Your task to perform on an android device: When is my next appointment? Image 0: 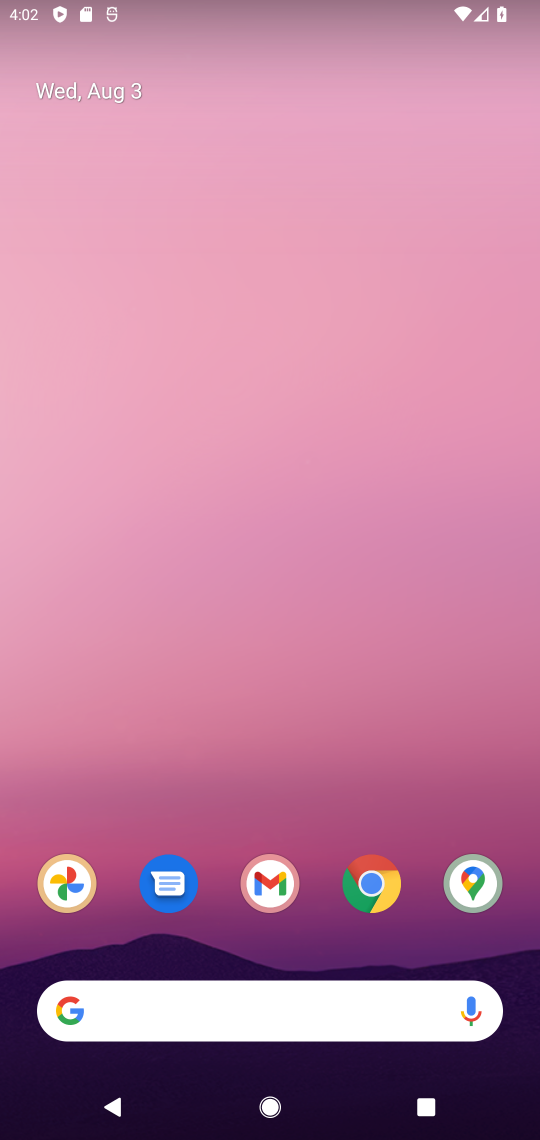
Step 0: drag from (274, 900) to (322, 205)
Your task to perform on an android device: When is my next appointment? Image 1: 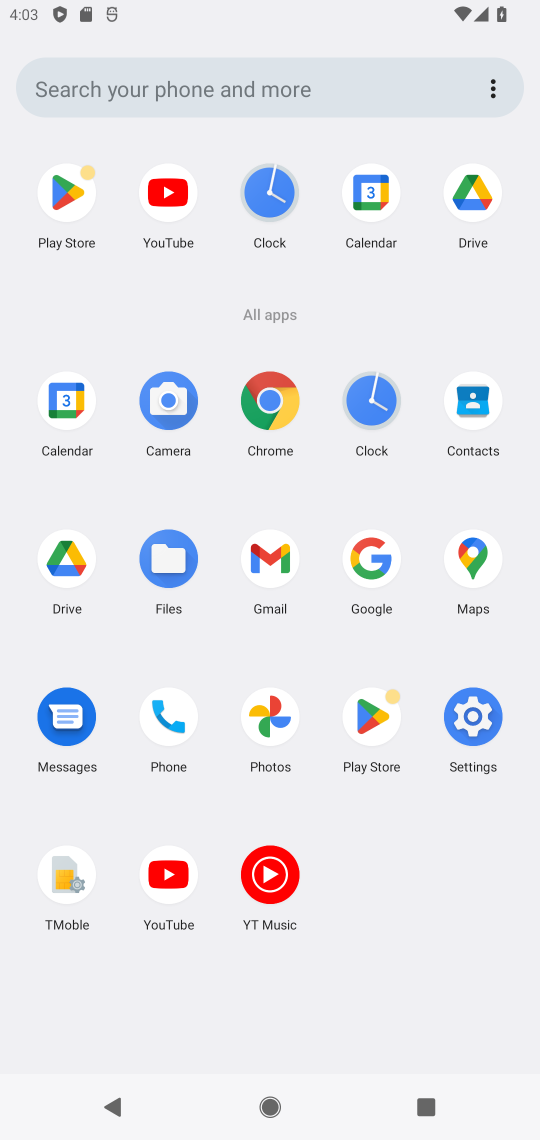
Step 1: click (474, 421)
Your task to perform on an android device: When is my next appointment? Image 2: 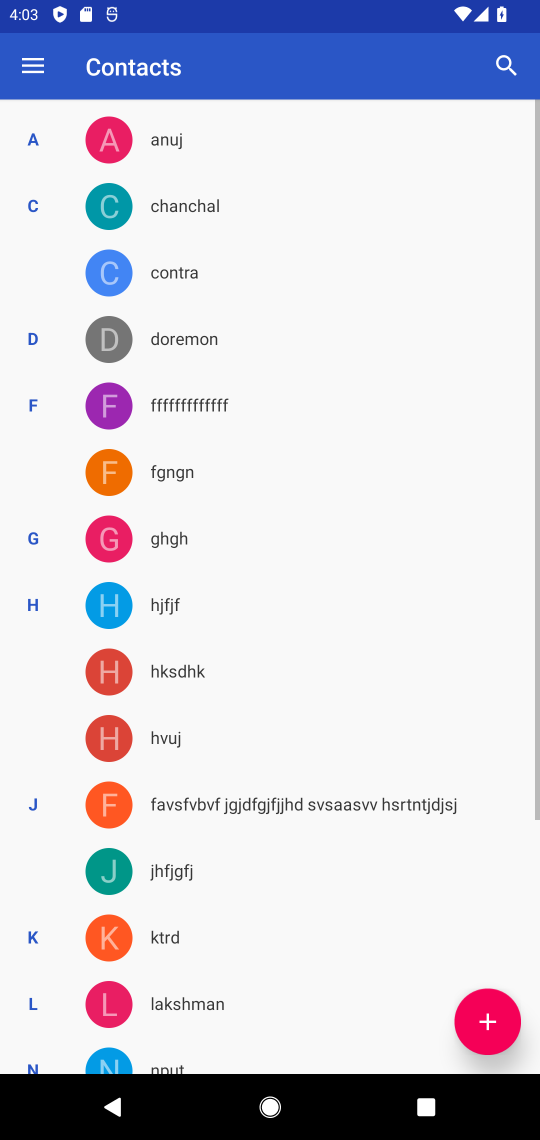
Step 2: press back button
Your task to perform on an android device: When is my next appointment? Image 3: 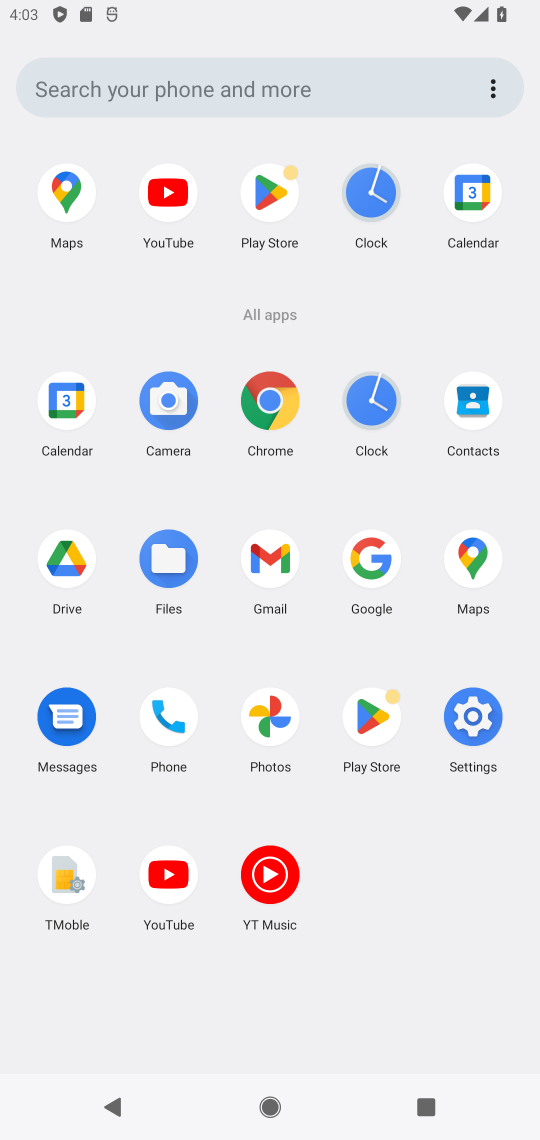
Step 3: click (64, 401)
Your task to perform on an android device: When is my next appointment? Image 4: 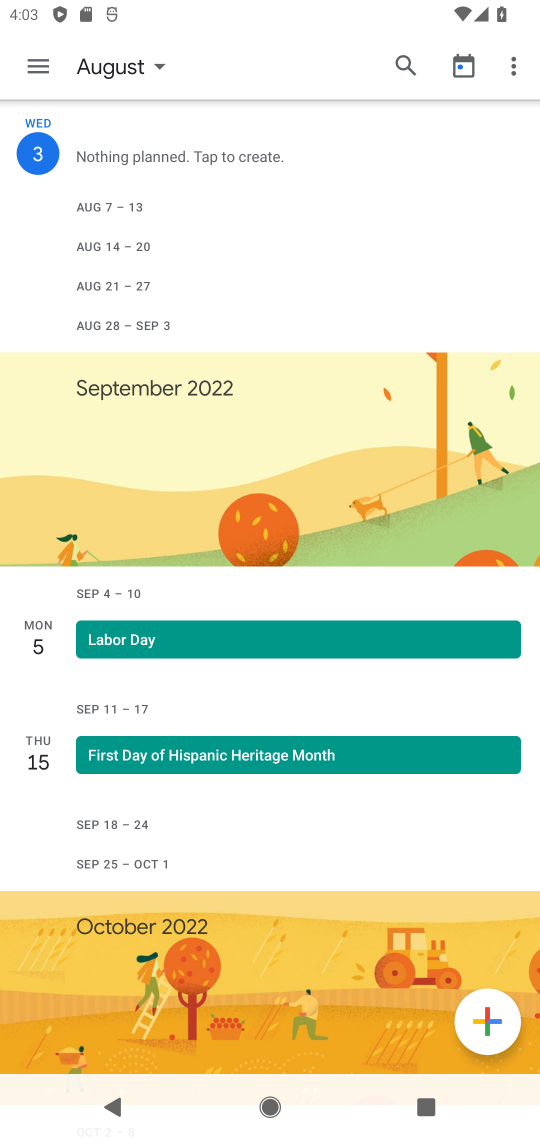
Step 4: click (43, 58)
Your task to perform on an android device: When is my next appointment? Image 5: 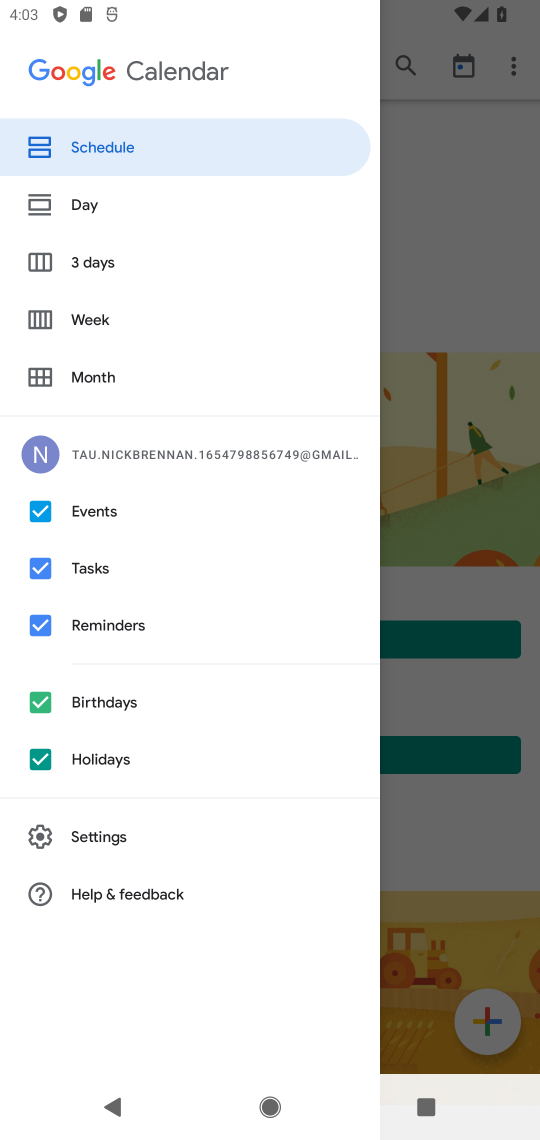
Step 5: click (158, 142)
Your task to perform on an android device: When is my next appointment? Image 6: 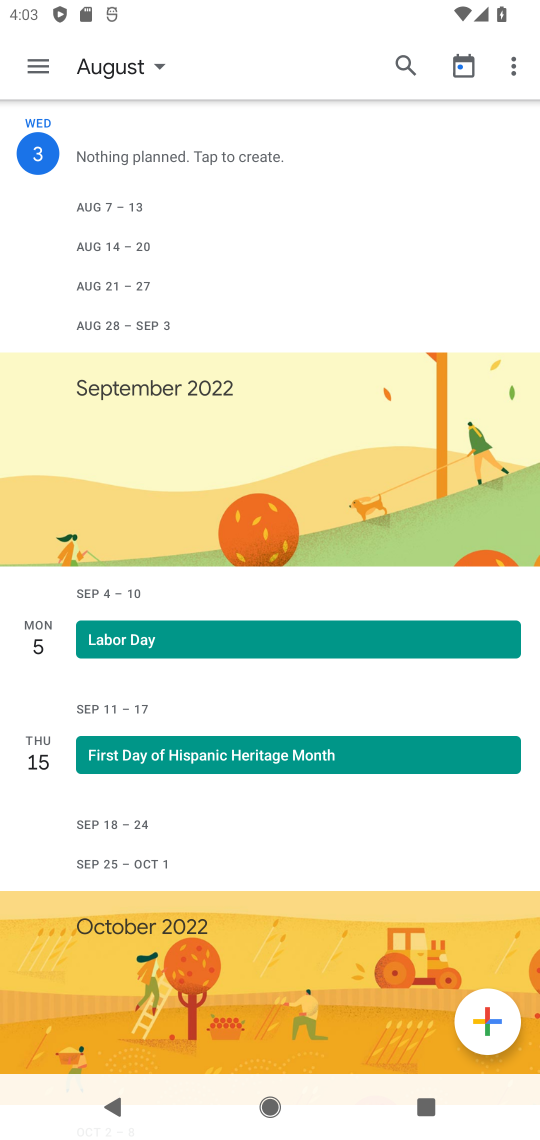
Step 6: task complete